Your task to perform on an android device: snooze an email in the gmail app Image 0: 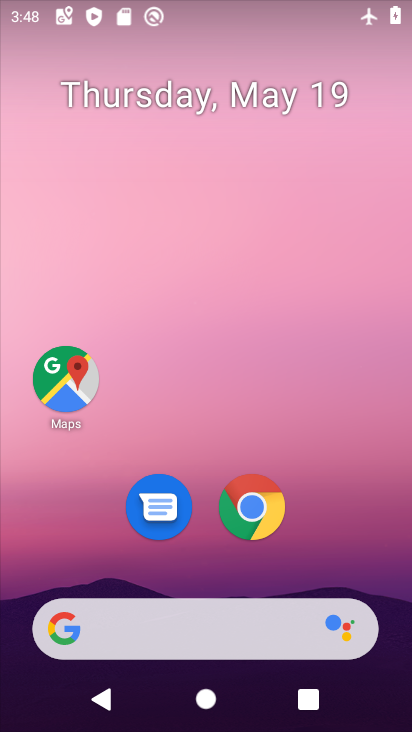
Step 0: drag from (391, 646) to (387, 470)
Your task to perform on an android device: snooze an email in the gmail app Image 1: 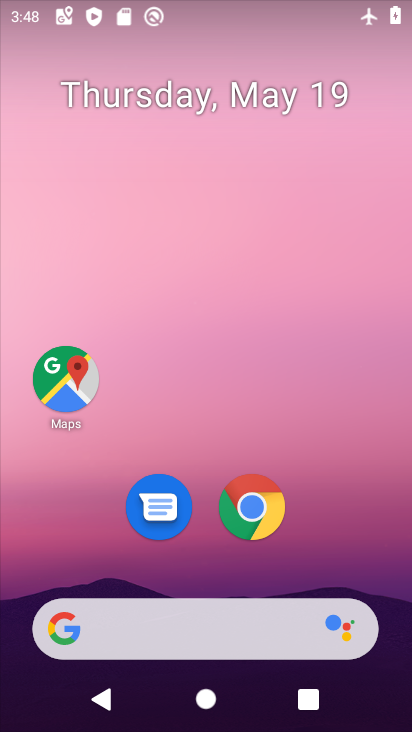
Step 1: drag from (398, 593) to (396, 202)
Your task to perform on an android device: snooze an email in the gmail app Image 2: 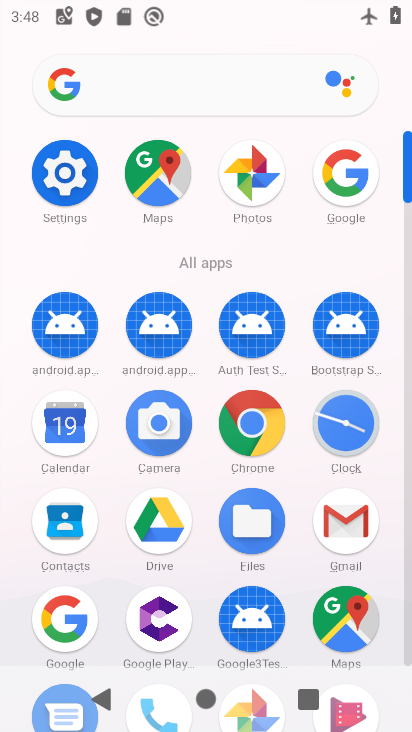
Step 2: click (351, 524)
Your task to perform on an android device: snooze an email in the gmail app Image 3: 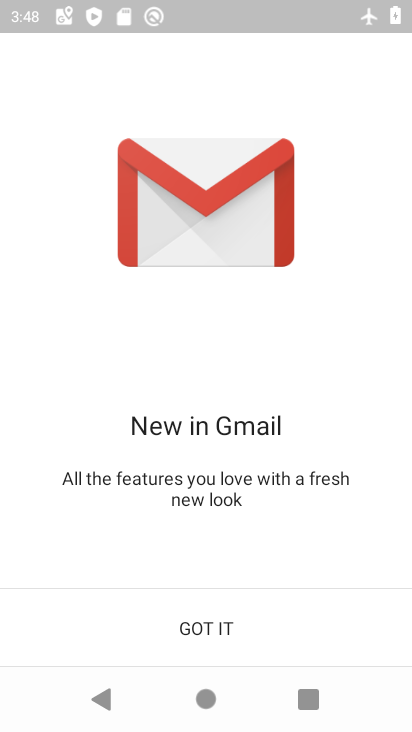
Step 3: click (192, 638)
Your task to perform on an android device: snooze an email in the gmail app Image 4: 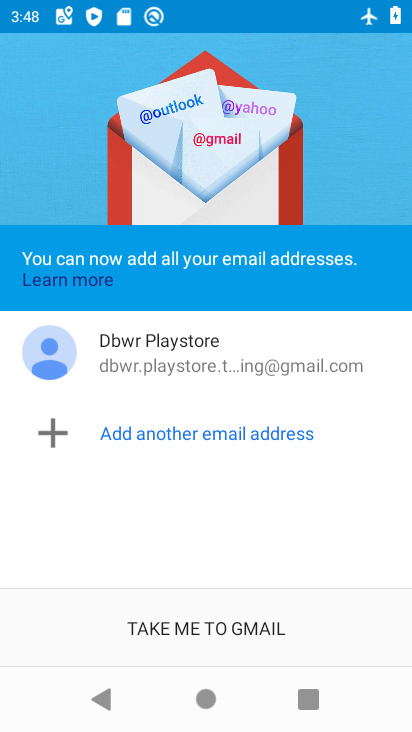
Step 4: click (194, 627)
Your task to perform on an android device: snooze an email in the gmail app Image 5: 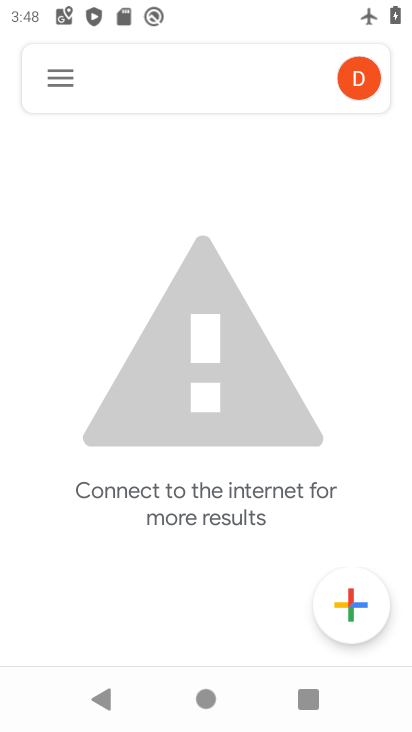
Step 5: click (60, 81)
Your task to perform on an android device: snooze an email in the gmail app Image 6: 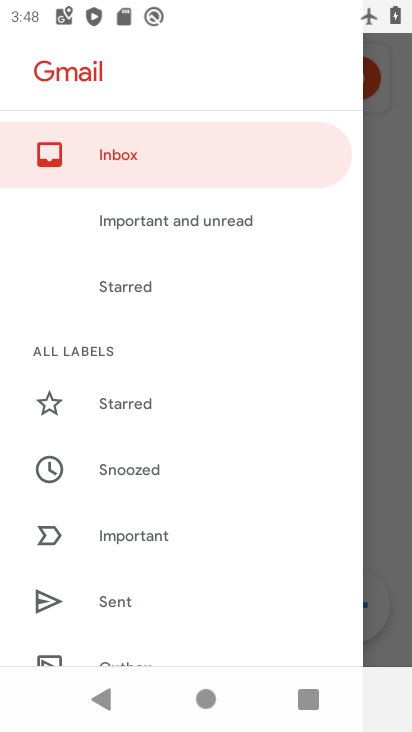
Step 6: drag from (211, 577) to (231, 354)
Your task to perform on an android device: snooze an email in the gmail app Image 7: 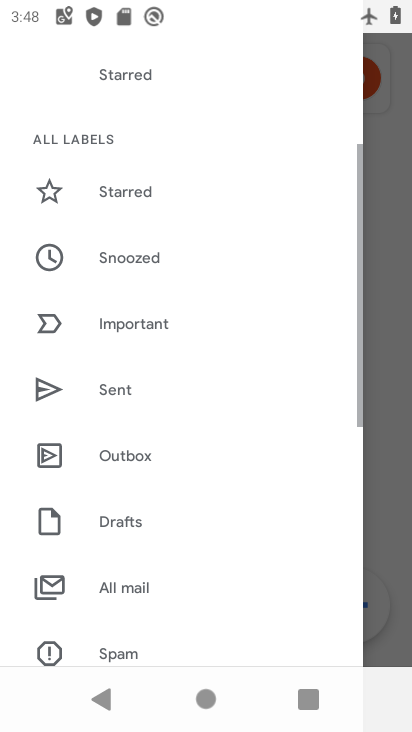
Step 7: drag from (214, 505) to (221, 409)
Your task to perform on an android device: snooze an email in the gmail app Image 8: 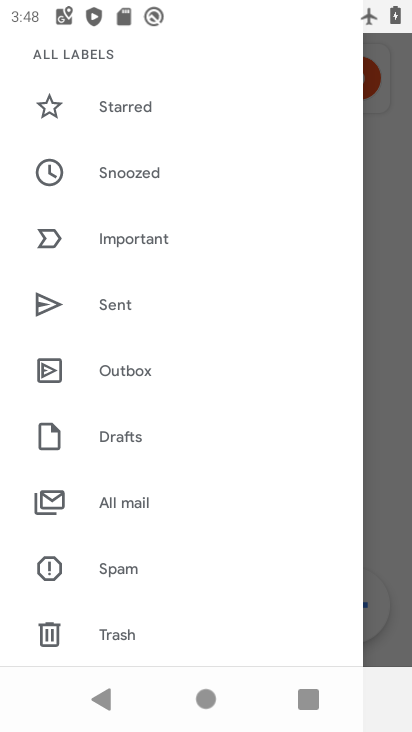
Step 8: drag from (221, 139) to (196, 438)
Your task to perform on an android device: snooze an email in the gmail app Image 9: 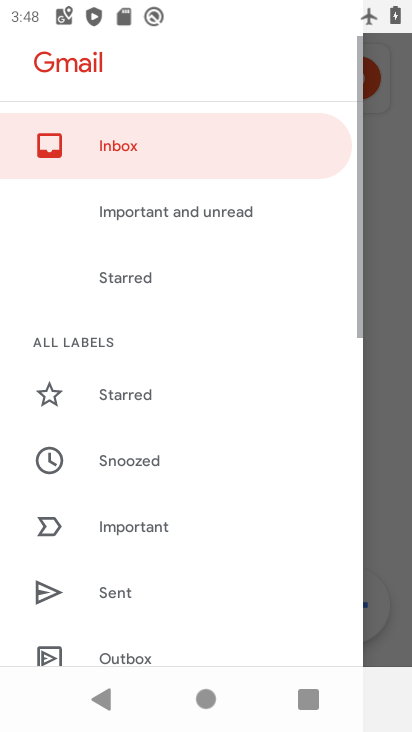
Step 9: drag from (241, 236) to (226, 451)
Your task to perform on an android device: snooze an email in the gmail app Image 10: 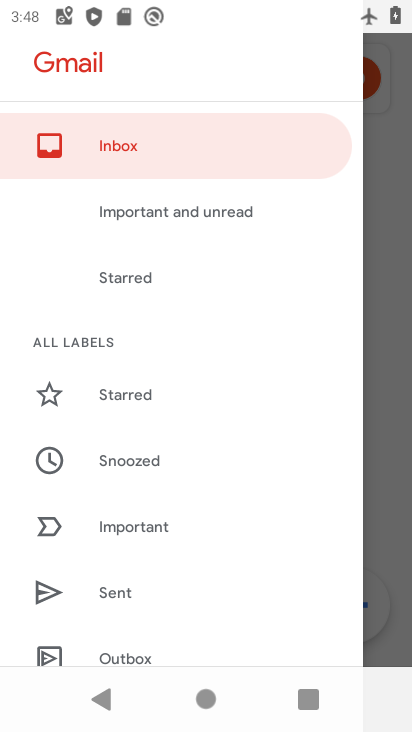
Step 10: click (155, 150)
Your task to perform on an android device: snooze an email in the gmail app Image 11: 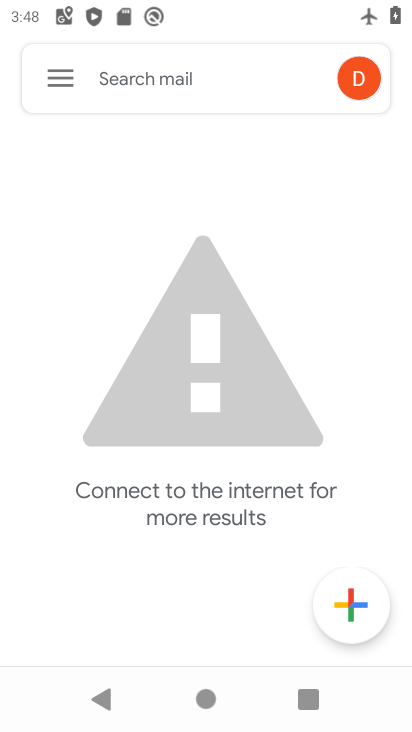
Step 11: task complete